Your task to perform on an android device: all mails in gmail Image 0: 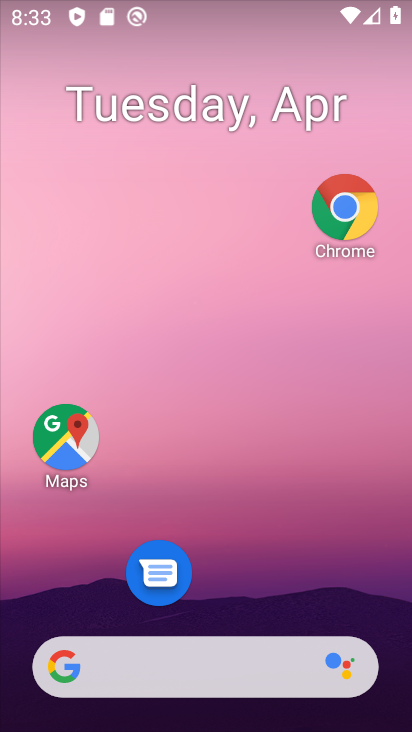
Step 0: drag from (206, 618) to (130, 6)
Your task to perform on an android device: all mails in gmail Image 1: 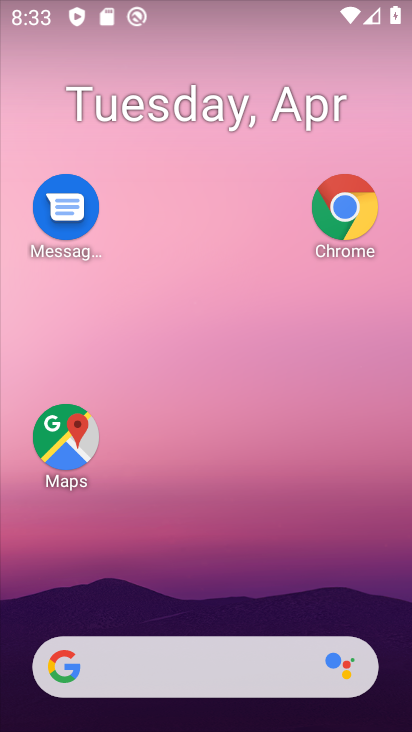
Step 1: drag from (194, 617) to (174, 0)
Your task to perform on an android device: all mails in gmail Image 2: 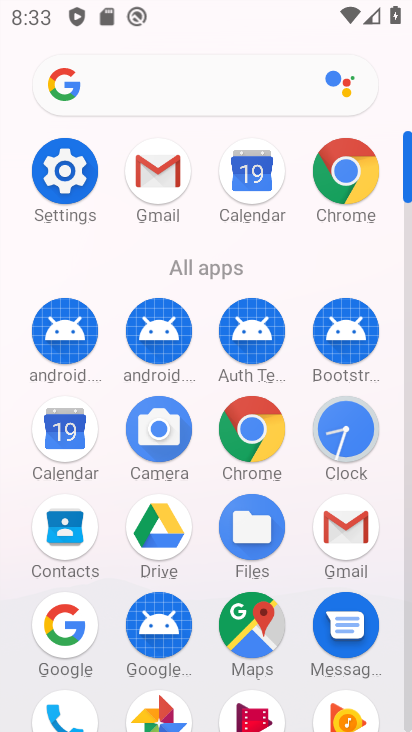
Step 2: click (350, 541)
Your task to perform on an android device: all mails in gmail Image 3: 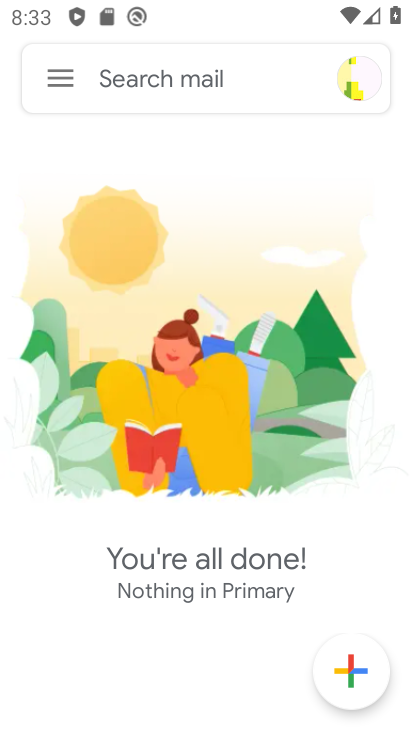
Step 3: click (49, 78)
Your task to perform on an android device: all mails in gmail Image 4: 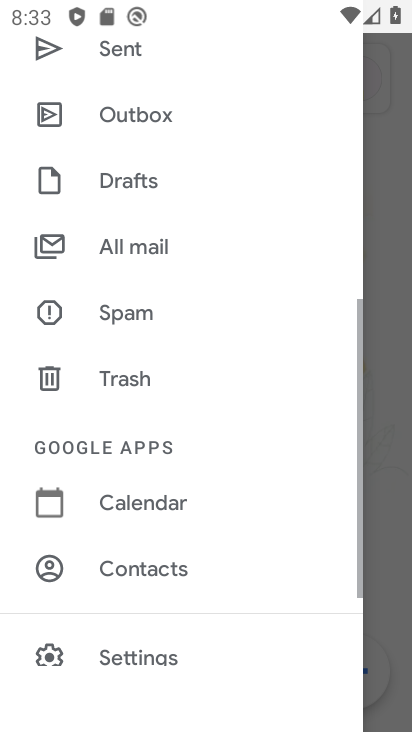
Step 4: click (82, 237)
Your task to perform on an android device: all mails in gmail Image 5: 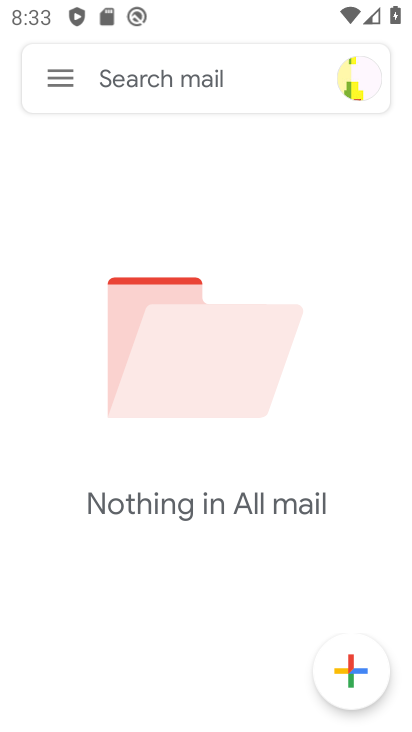
Step 5: task complete